Your task to perform on an android device: Open Chrome and go to settings Image 0: 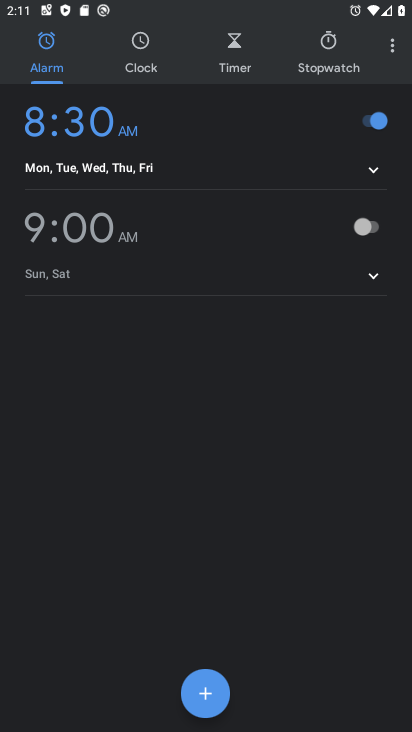
Step 0: press home button
Your task to perform on an android device: Open Chrome and go to settings Image 1: 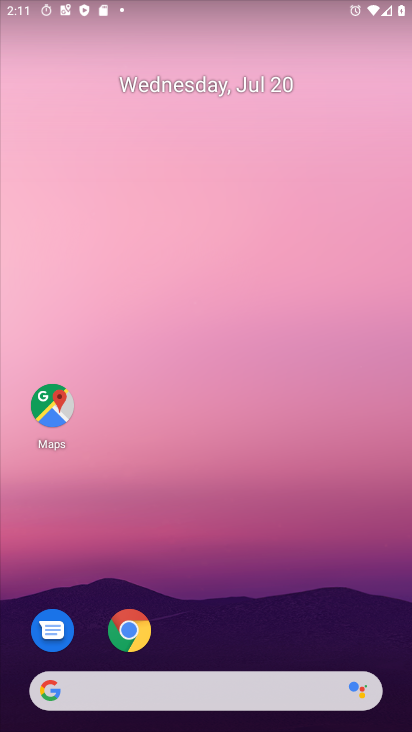
Step 1: click (126, 627)
Your task to perform on an android device: Open Chrome and go to settings Image 2: 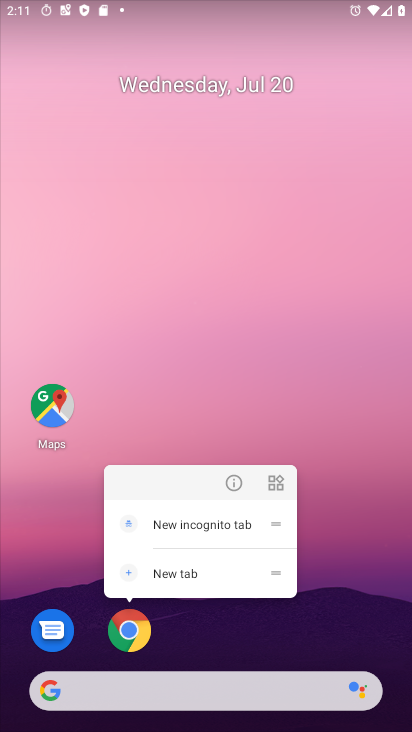
Step 2: click (135, 635)
Your task to perform on an android device: Open Chrome and go to settings Image 3: 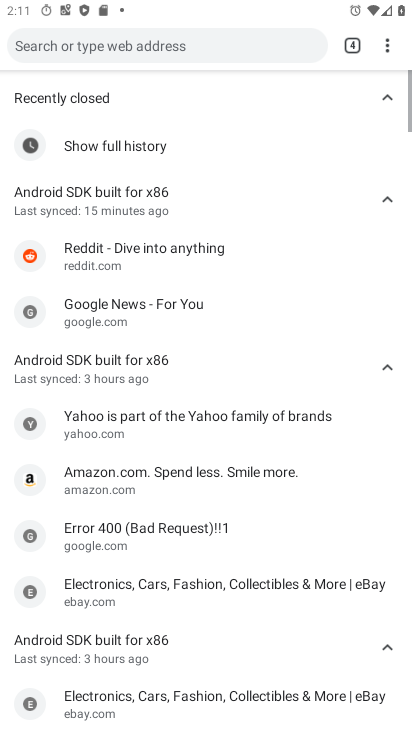
Step 3: task complete